Your task to perform on an android device: turn off javascript in the chrome app Image 0: 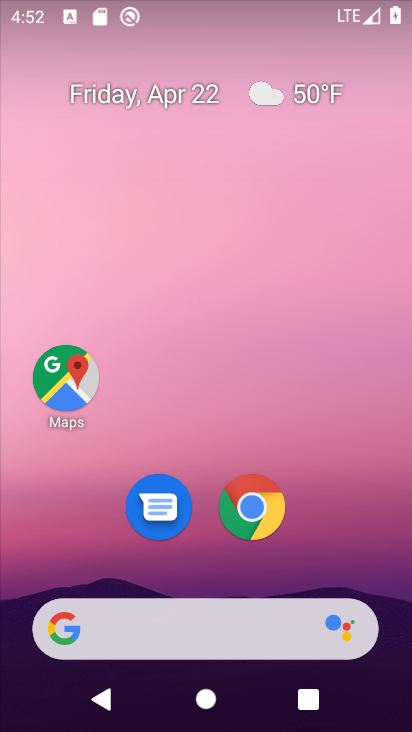
Step 0: click (255, 505)
Your task to perform on an android device: turn off javascript in the chrome app Image 1: 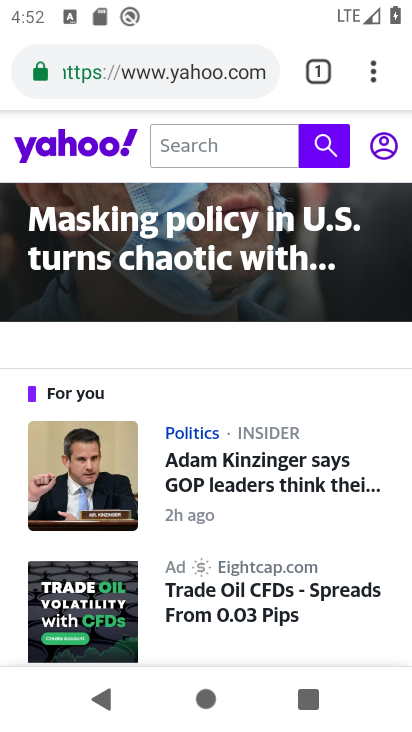
Step 1: click (369, 73)
Your task to perform on an android device: turn off javascript in the chrome app Image 2: 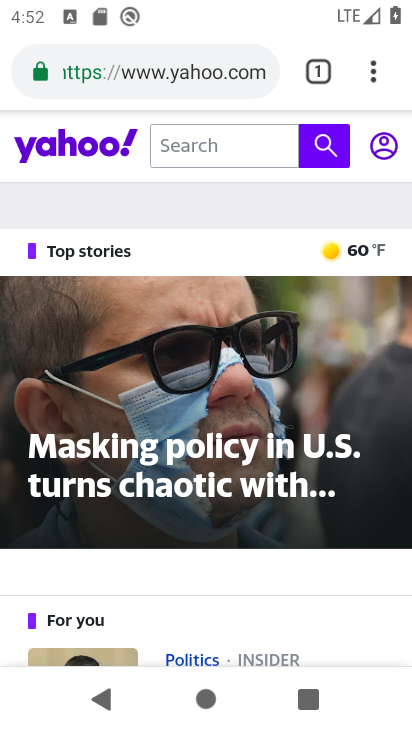
Step 2: click (369, 81)
Your task to perform on an android device: turn off javascript in the chrome app Image 3: 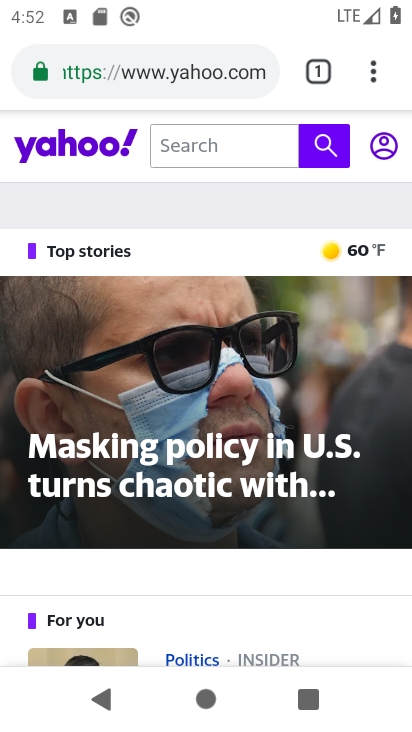
Step 3: click (367, 75)
Your task to perform on an android device: turn off javascript in the chrome app Image 4: 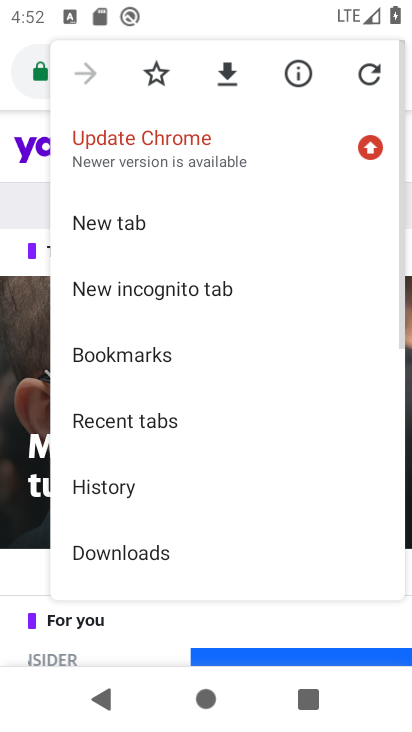
Step 4: drag from (180, 484) to (250, 264)
Your task to perform on an android device: turn off javascript in the chrome app Image 5: 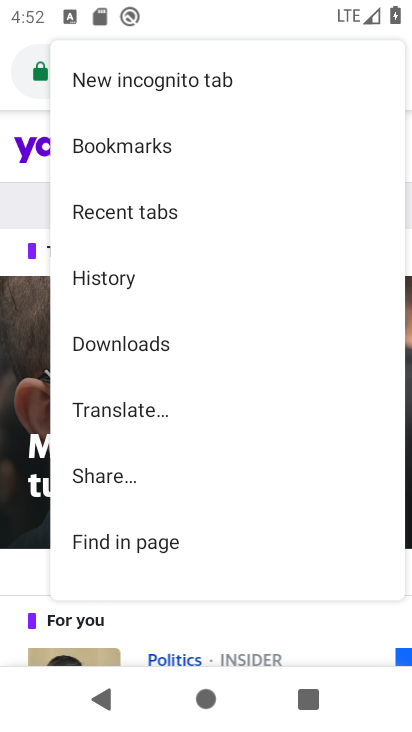
Step 5: drag from (190, 507) to (269, 54)
Your task to perform on an android device: turn off javascript in the chrome app Image 6: 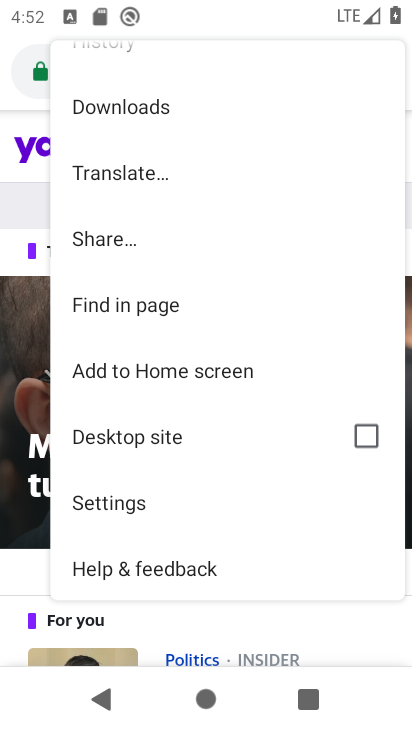
Step 6: click (90, 492)
Your task to perform on an android device: turn off javascript in the chrome app Image 7: 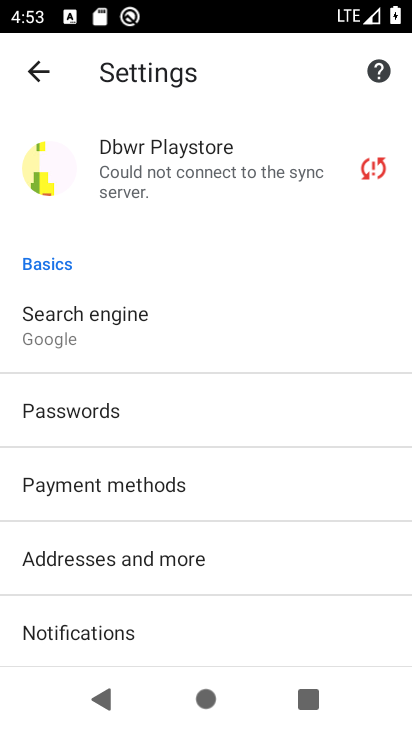
Step 7: drag from (236, 563) to (267, 232)
Your task to perform on an android device: turn off javascript in the chrome app Image 8: 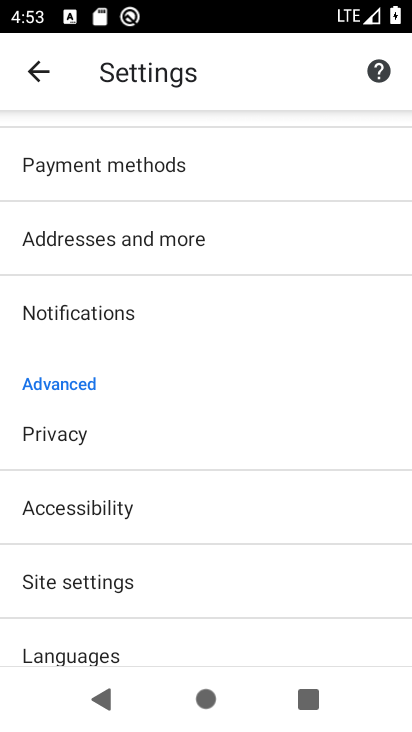
Step 8: click (81, 574)
Your task to perform on an android device: turn off javascript in the chrome app Image 9: 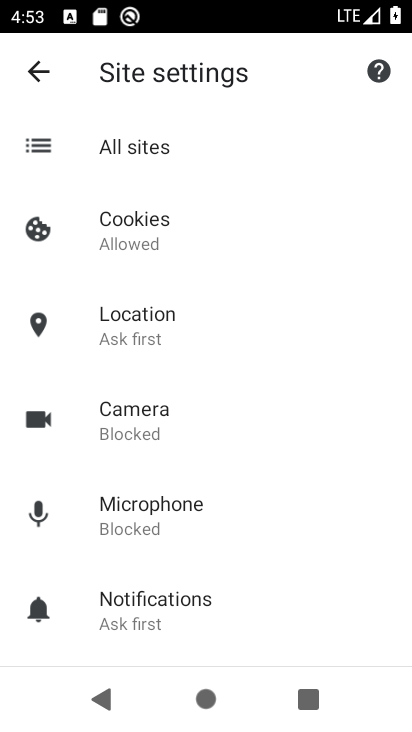
Step 9: drag from (252, 580) to (249, 269)
Your task to perform on an android device: turn off javascript in the chrome app Image 10: 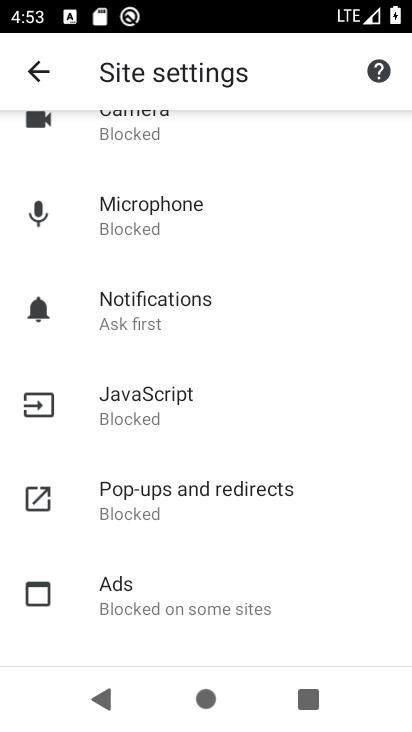
Step 10: click (142, 407)
Your task to perform on an android device: turn off javascript in the chrome app Image 11: 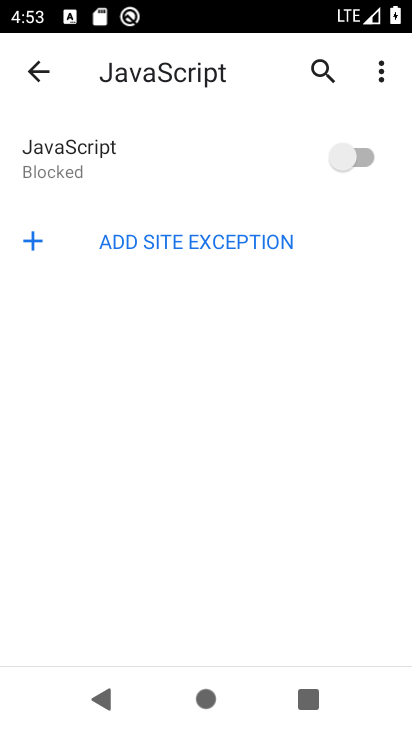
Step 11: task complete